Your task to perform on an android device: Search for pizza restaurants on Maps Image 0: 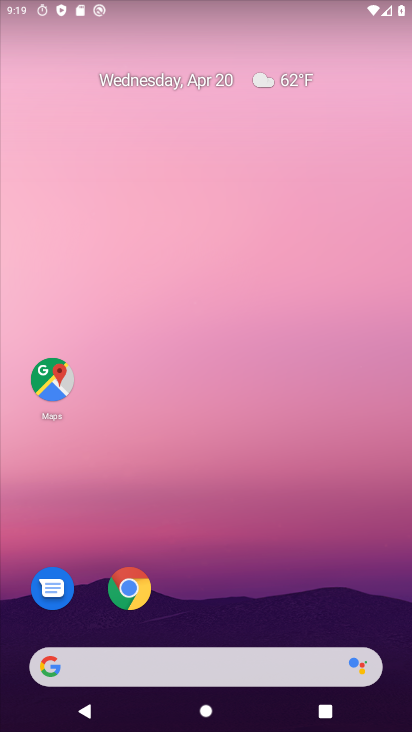
Step 0: drag from (265, 545) to (226, 9)
Your task to perform on an android device: Search for pizza restaurants on Maps Image 1: 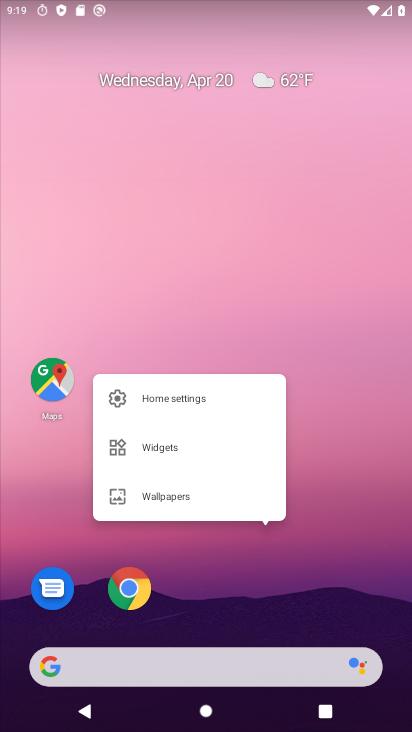
Step 1: click (347, 468)
Your task to perform on an android device: Search for pizza restaurants on Maps Image 2: 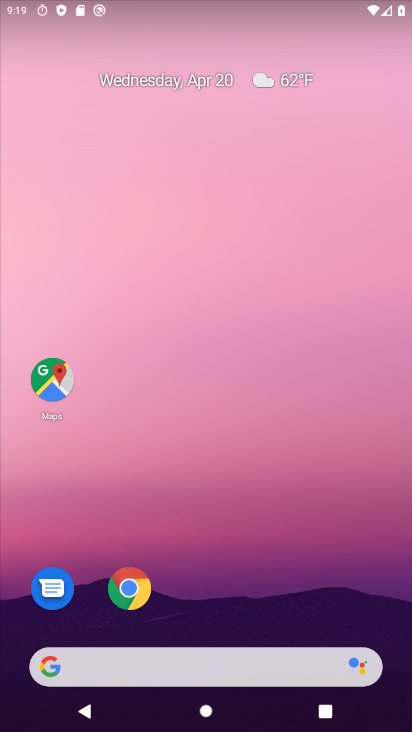
Step 2: drag from (361, 552) to (339, 38)
Your task to perform on an android device: Search for pizza restaurants on Maps Image 3: 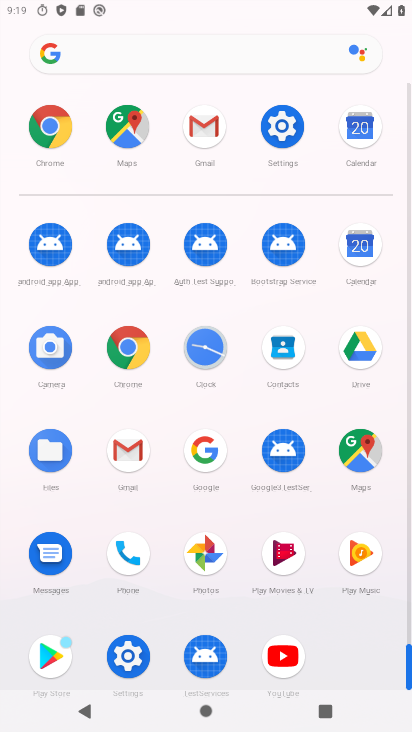
Step 3: click (357, 450)
Your task to perform on an android device: Search for pizza restaurants on Maps Image 4: 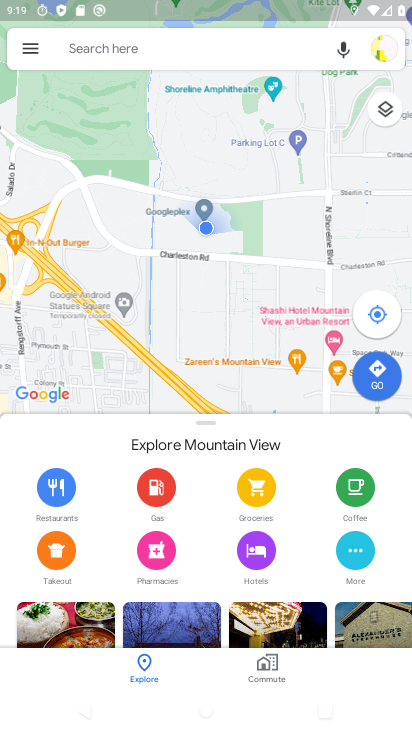
Step 4: click (202, 42)
Your task to perform on an android device: Search for pizza restaurants on Maps Image 5: 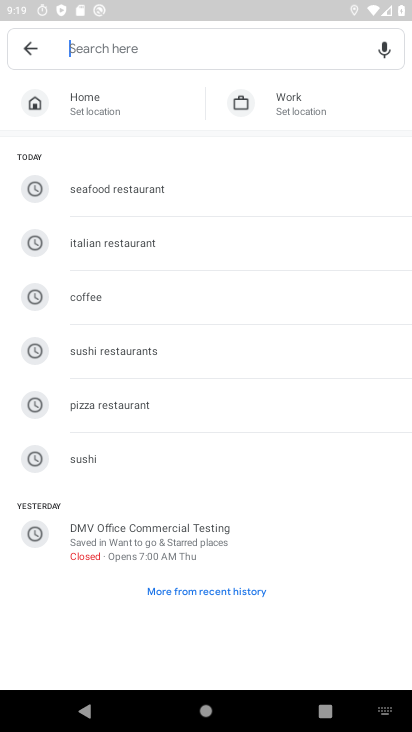
Step 5: click (111, 410)
Your task to perform on an android device: Search for pizza restaurants on Maps Image 6: 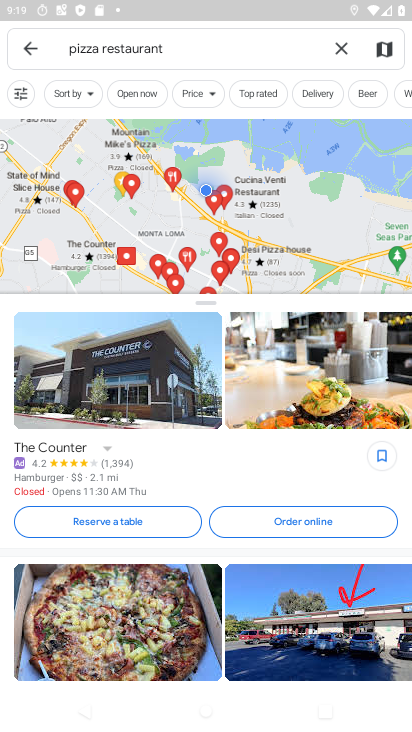
Step 6: task complete